Your task to perform on an android device: Check the weather Image 0: 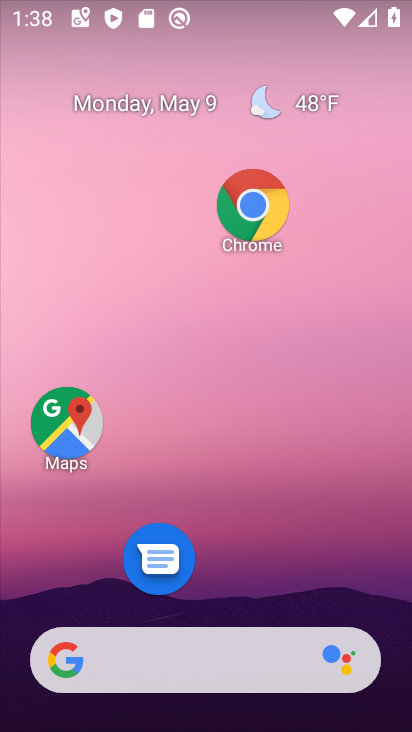
Step 0: drag from (275, 591) to (350, 200)
Your task to perform on an android device: Check the weather Image 1: 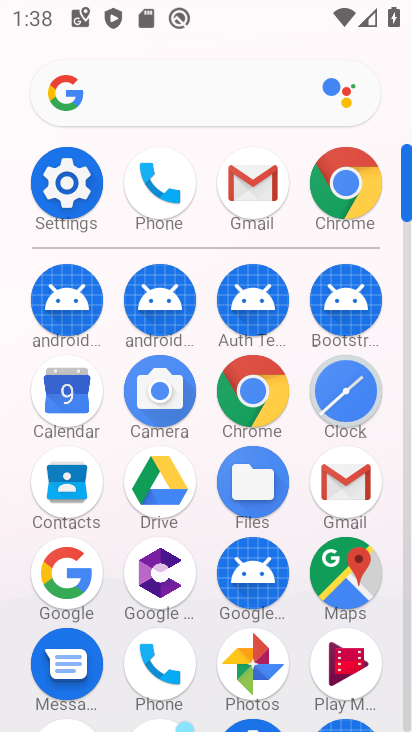
Step 1: click (246, 372)
Your task to perform on an android device: Check the weather Image 2: 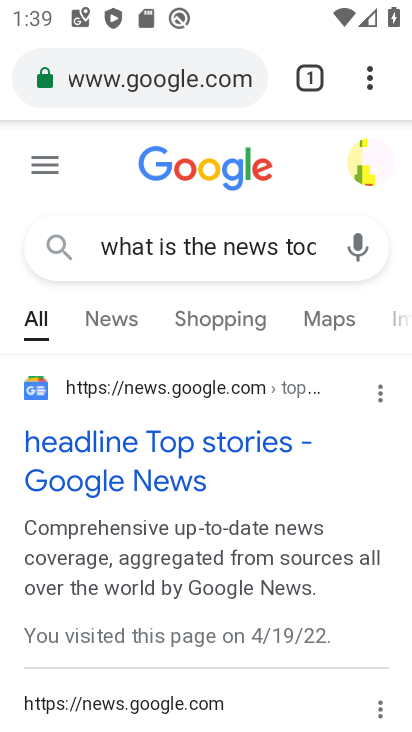
Step 2: click (364, 86)
Your task to perform on an android device: Check the weather Image 3: 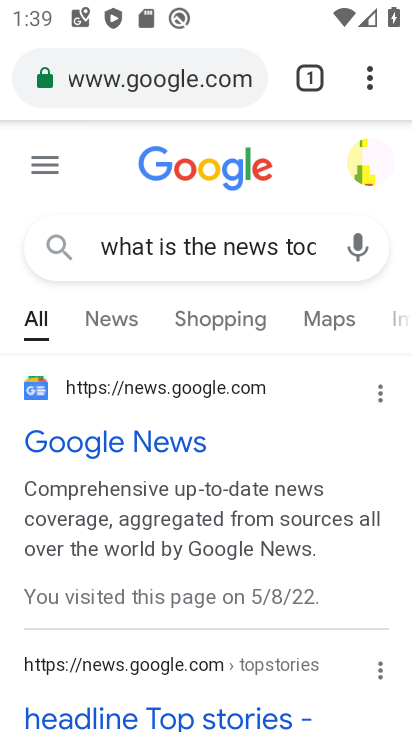
Step 3: click (356, 74)
Your task to perform on an android device: Check the weather Image 4: 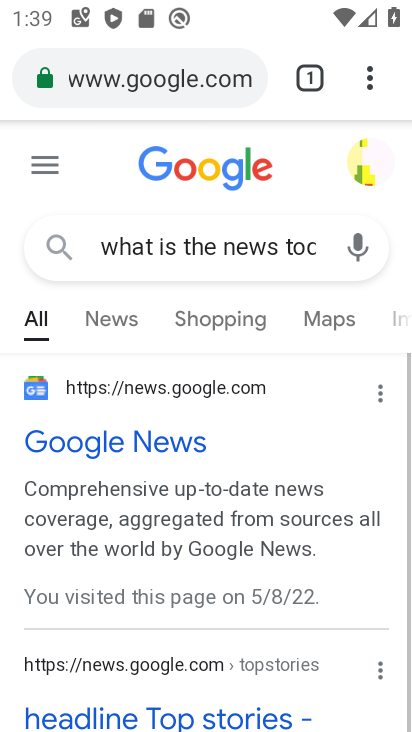
Step 4: click (347, 65)
Your task to perform on an android device: Check the weather Image 5: 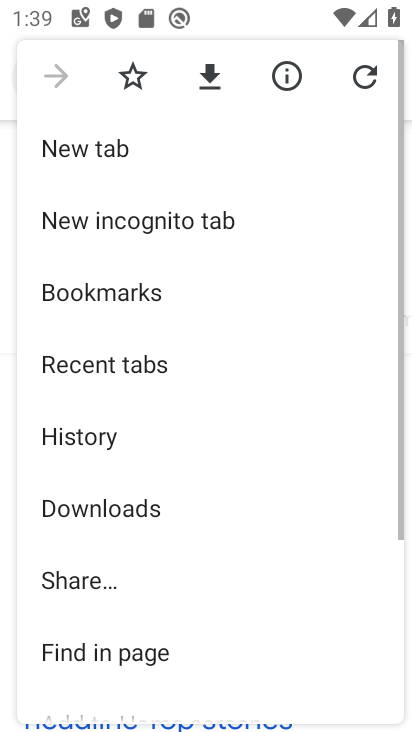
Step 5: click (69, 155)
Your task to perform on an android device: Check the weather Image 6: 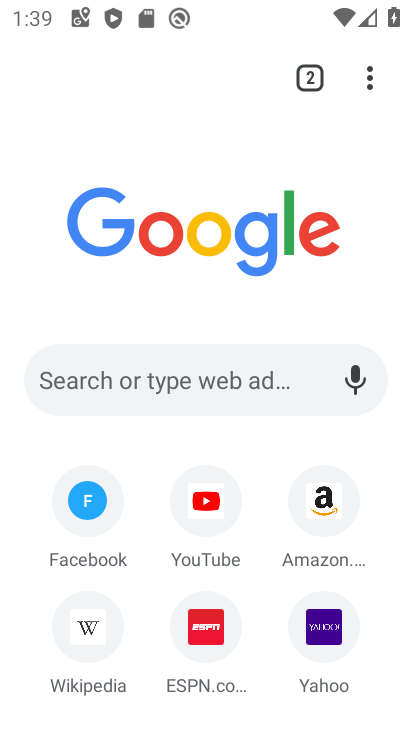
Step 6: click (229, 327)
Your task to perform on an android device: Check the weather Image 7: 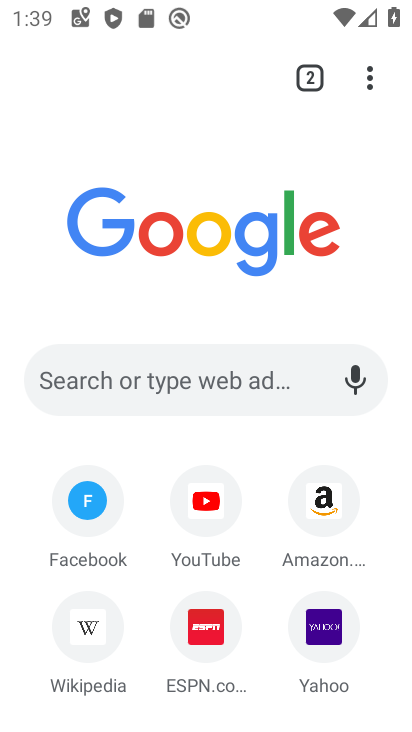
Step 7: click (222, 365)
Your task to perform on an android device: Check the weather Image 8: 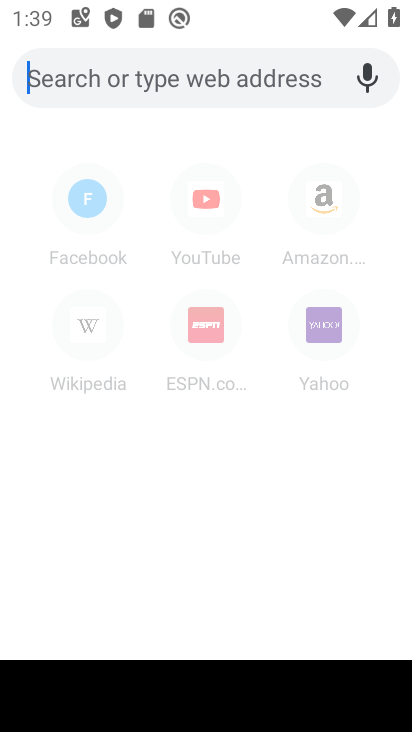
Step 8: type "Check the weather"
Your task to perform on an android device: Check the weather Image 9: 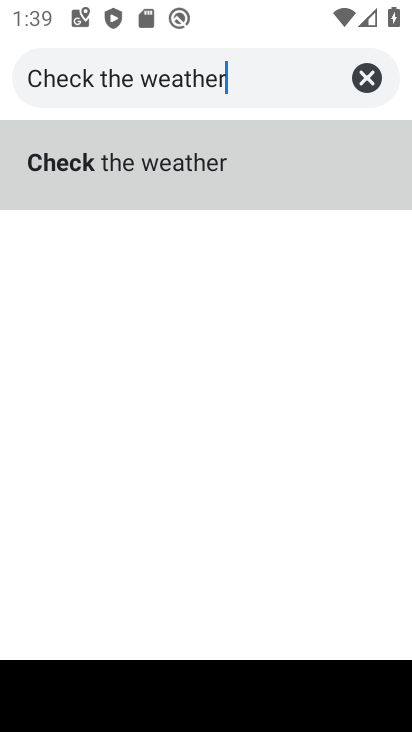
Step 9: click (316, 183)
Your task to perform on an android device: Check the weather Image 10: 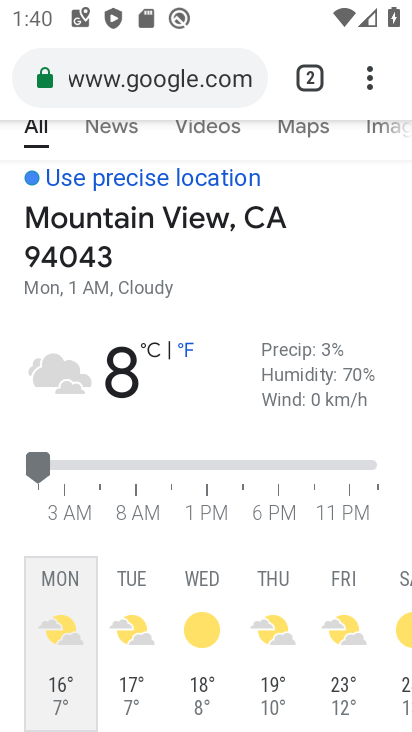
Step 10: task complete